Your task to perform on an android device: Turn off the flashlight Image 0: 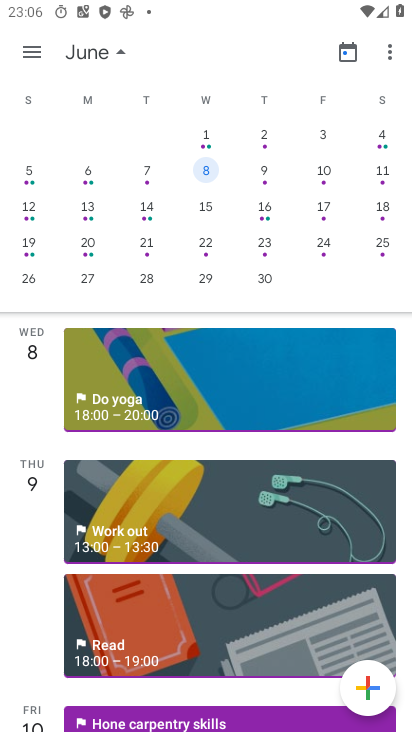
Step 0: press home button
Your task to perform on an android device: Turn off the flashlight Image 1: 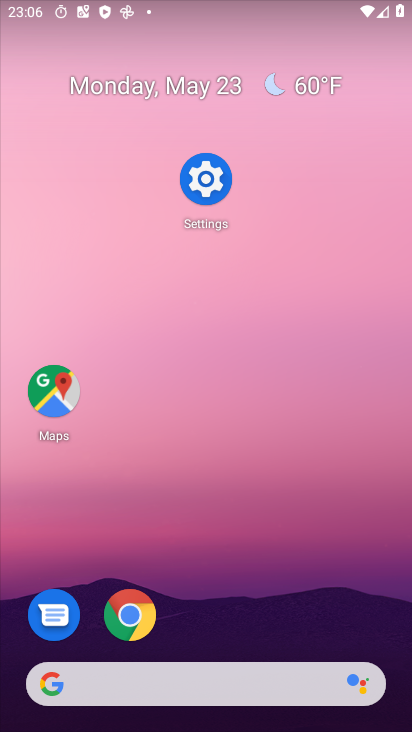
Step 1: drag from (225, 598) to (337, 38)
Your task to perform on an android device: Turn off the flashlight Image 2: 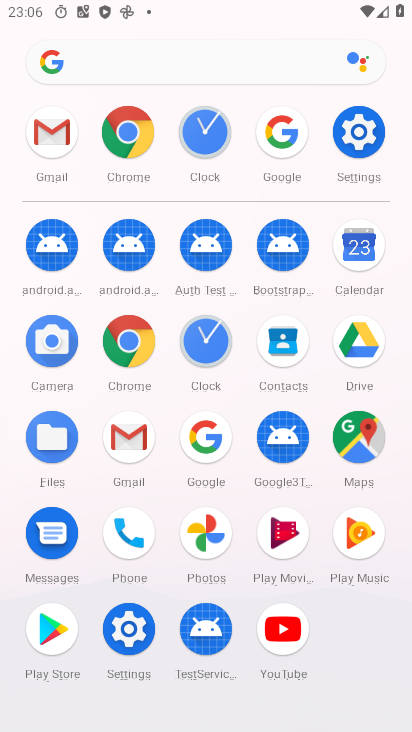
Step 2: click (128, 632)
Your task to perform on an android device: Turn off the flashlight Image 3: 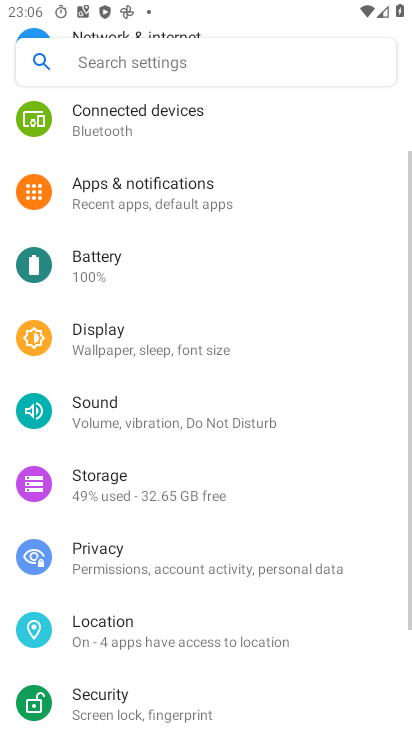
Step 3: click (193, 62)
Your task to perform on an android device: Turn off the flashlight Image 4: 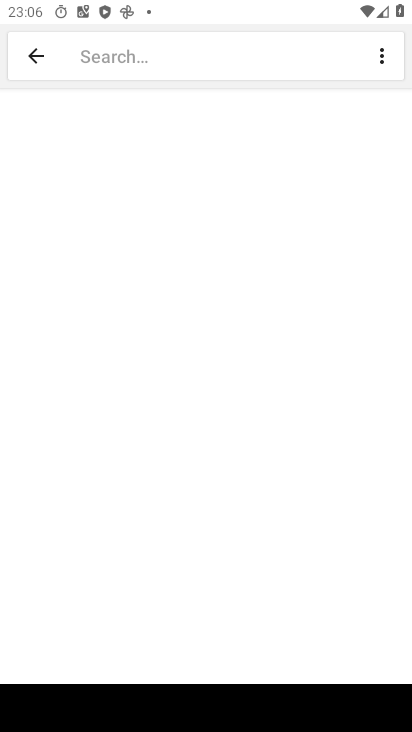
Step 4: type "flash"
Your task to perform on an android device: Turn off the flashlight Image 5: 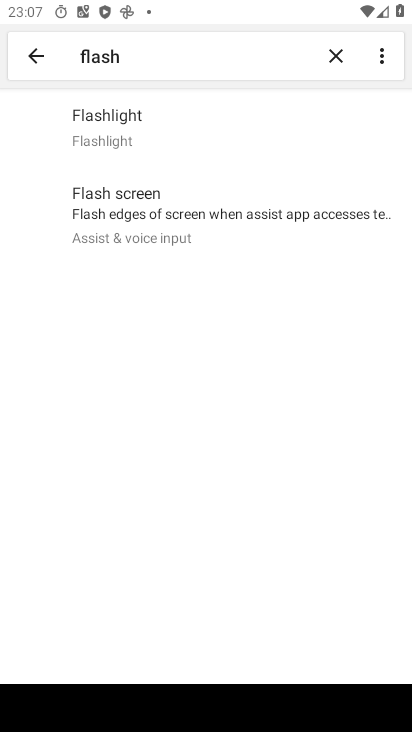
Step 5: task complete